Your task to perform on an android device: Find coffee shops on Maps Image 0: 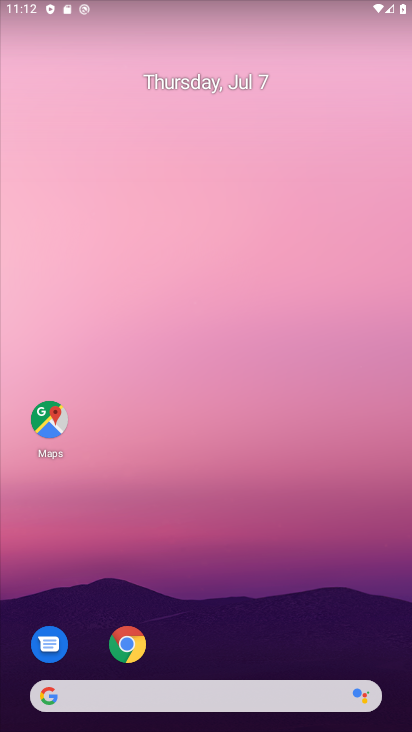
Step 0: drag from (199, 637) to (244, 167)
Your task to perform on an android device: Find coffee shops on Maps Image 1: 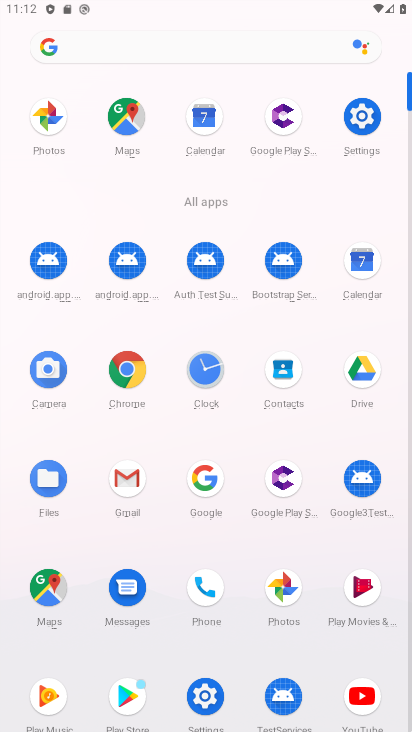
Step 1: click (38, 587)
Your task to perform on an android device: Find coffee shops on Maps Image 2: 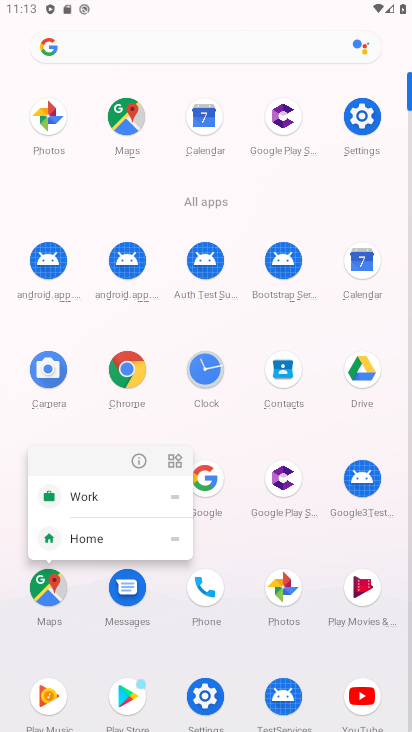
Step 2: click (131, 457)
Your task to perform on an android device: Find coffee shops on Maps Image 3: 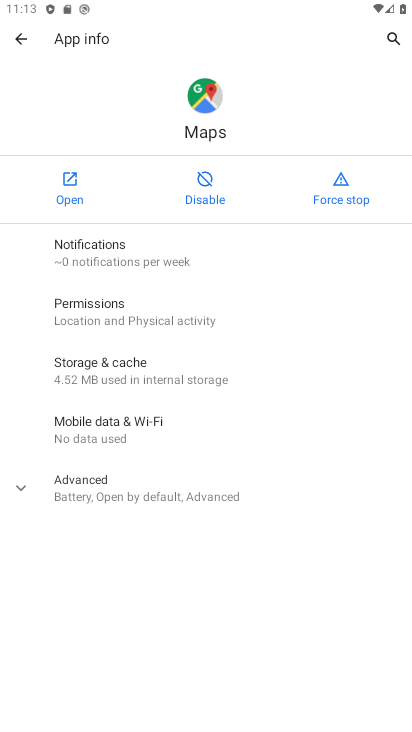
Step 3: click (70, 183)
Your task to perform on an android device: Find coffee shops on Maps Image 4: 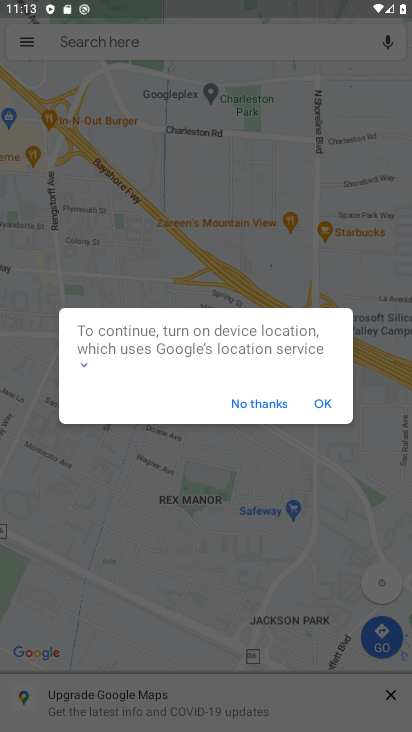
Step 4: click (314, 408)
Your task to perform on an android device: Find coffee shops on Maps Image 5: 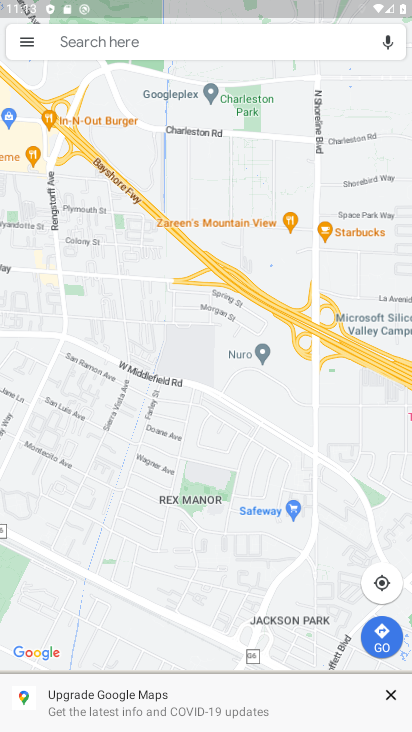
Step 5: click (133, 40)
Your task to perform on an android device: Find coffee shops on Maps Image 6: 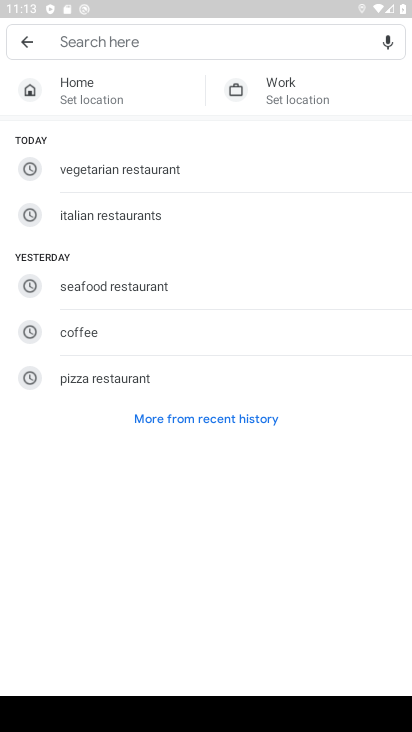
Step 6: click (168, 42)
Your task to perform on an android device: Find coffee shops on Maps Image 7: 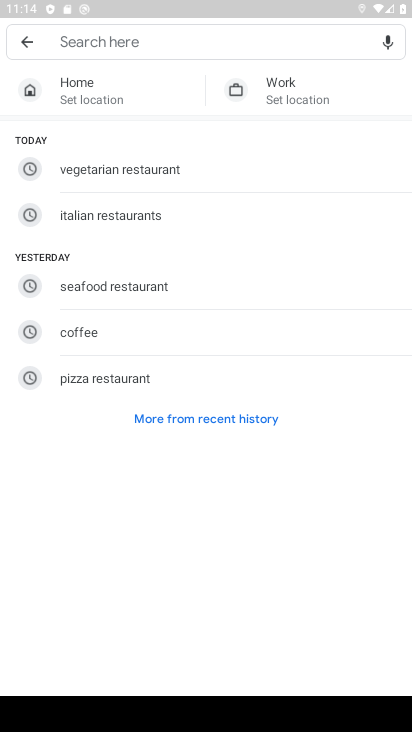
Step 7: type "coffee shops"
Your task to perform on an android device: Find coffee shops on Maps Image 8: 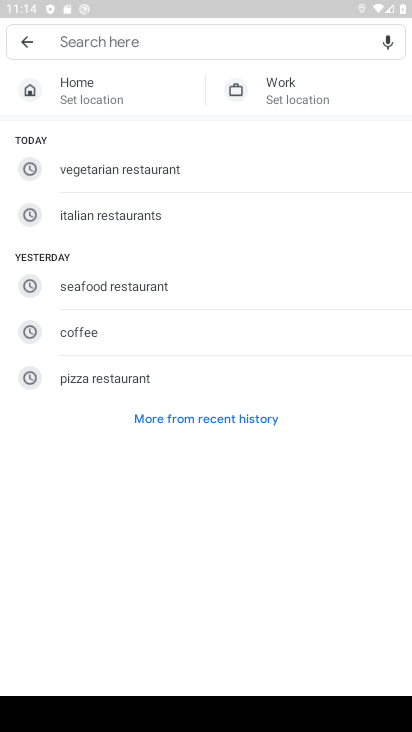
Step 8: click (274, 665)
Your task to perform on an android device: Find coffee shops on Maps Image 9: 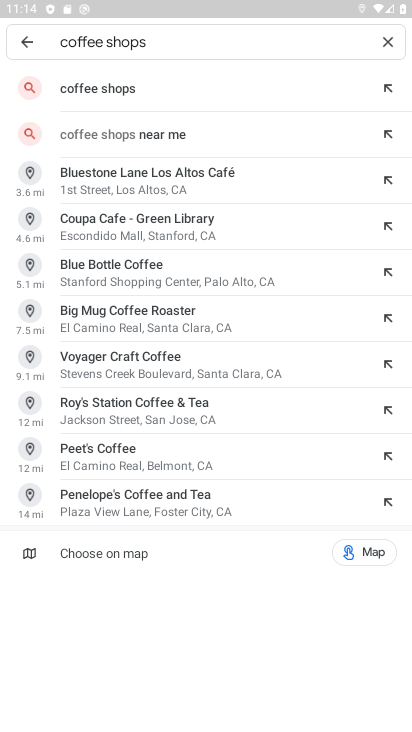
Step 9: click (136, 90)
Your task to perform on an android device: Find coffee shops on Maps Image 10: 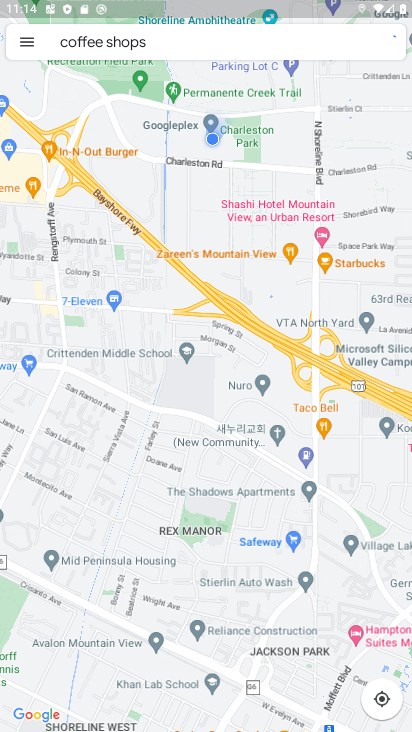
Step 10: task complete